Your task to perform on an android device: open app "Indeed Job Search" Image 0: 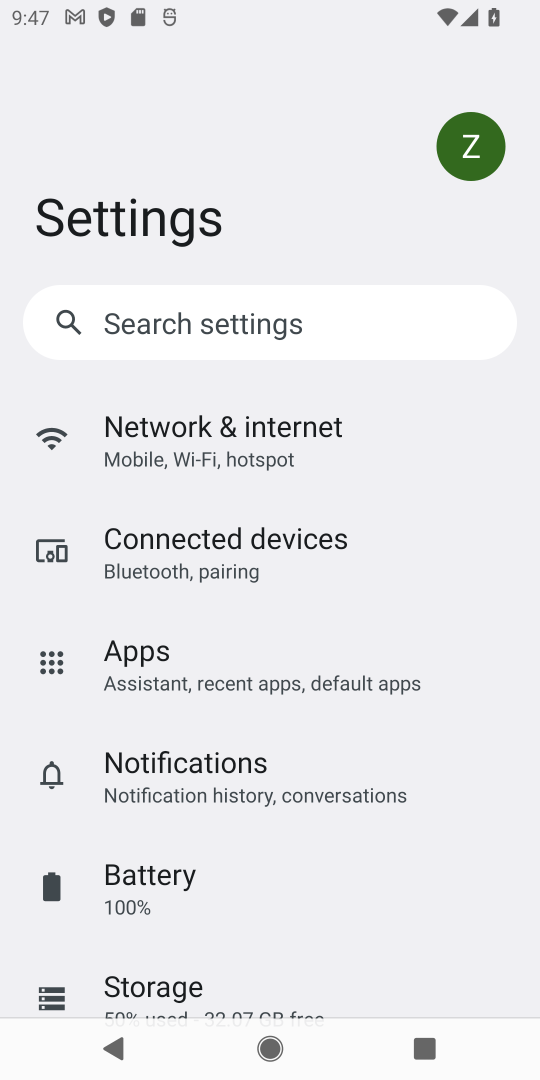
Step 0: press back button
Your task to perform on an android device: open app "Indeed Job Search" Image 1: 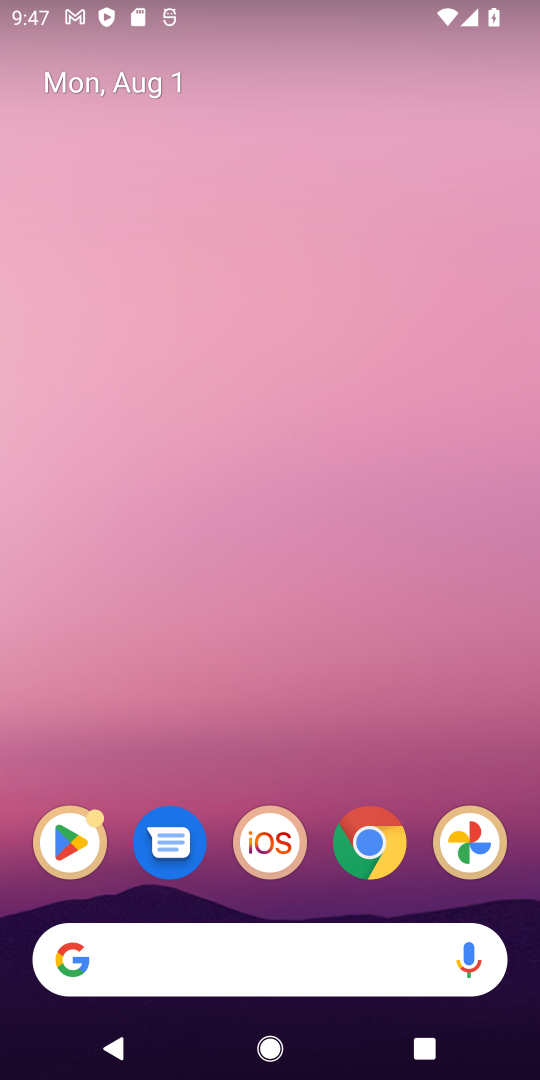
Step 1: click (86, 858)
Your task to perform on an android device: open app "Indeed Job Search" Image 2: 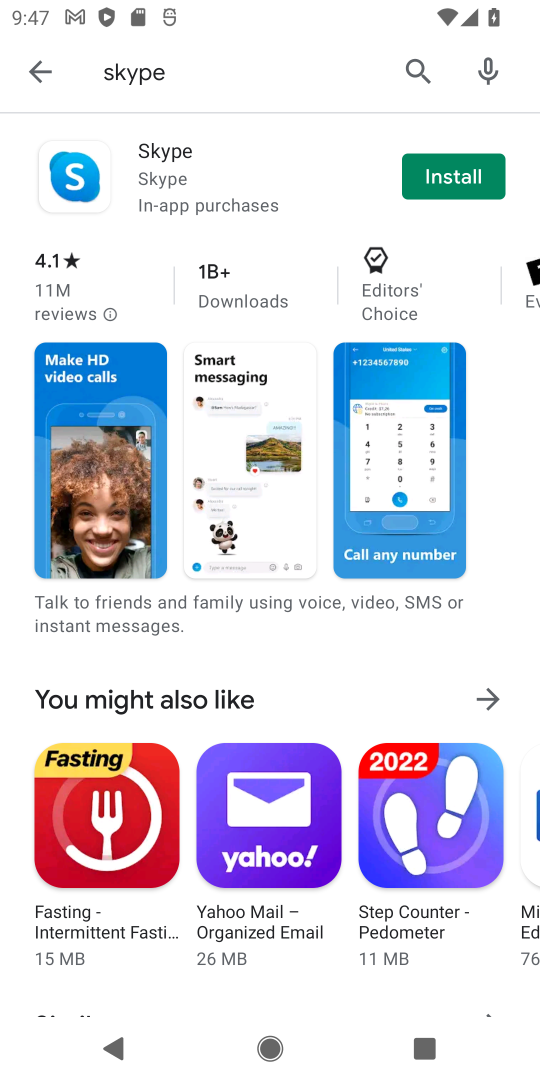
Step 2: click (401, 62)
Your task to perform on an android device: open app "Indeed Job Search" Image 3: 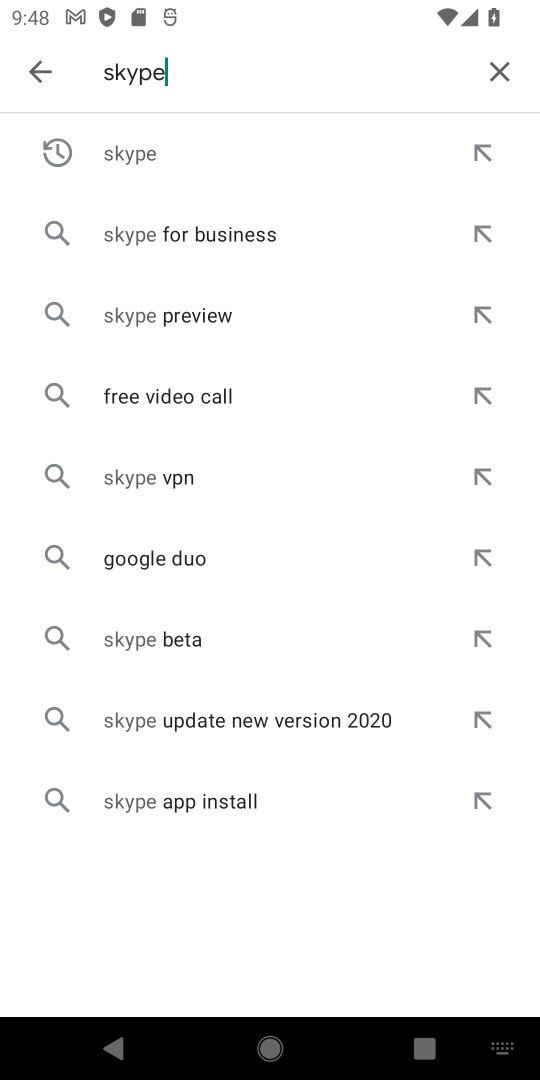
Step 3: click (488, 58)
Your task to perform on an android device: open app "Indeed Job Search" Image 4: 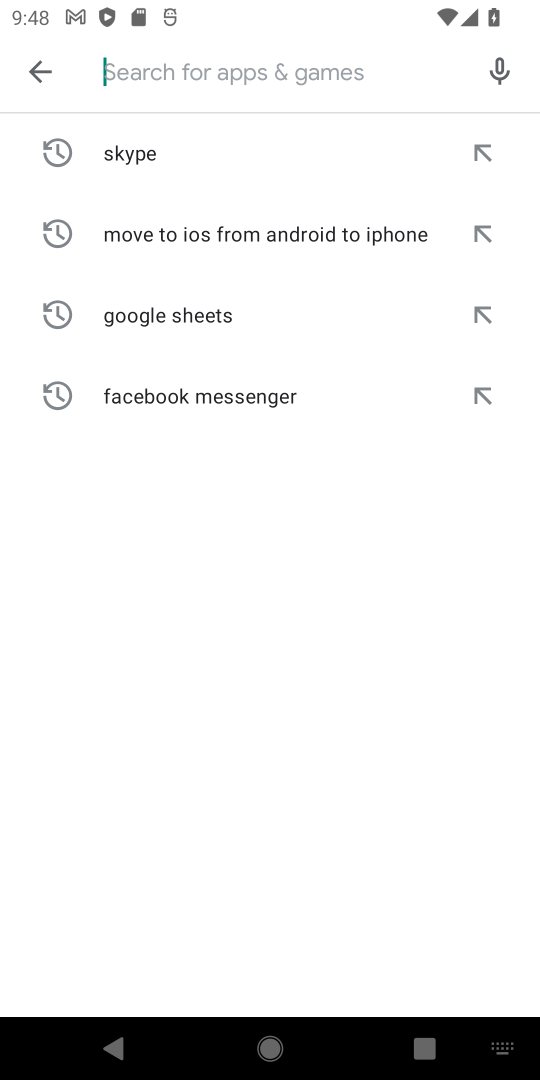
Step 4: click (153, 69)
Your task to perform on an android device: open app "Indeed Job Search" Image 5: 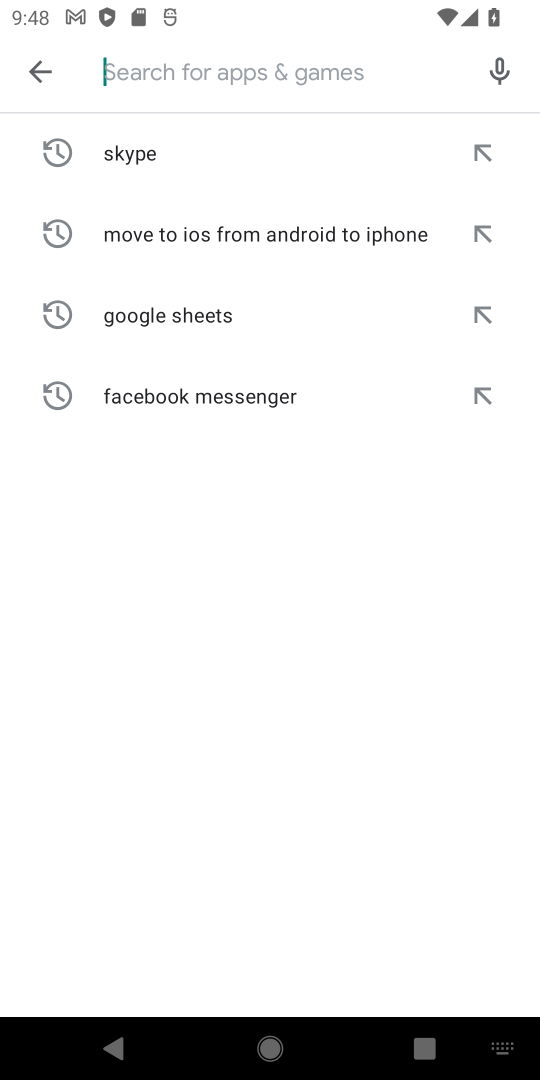
Step 5: type "Indeed Job Search"
Your task to perform on an android device: open app "Indeed Job Search" Image 6: 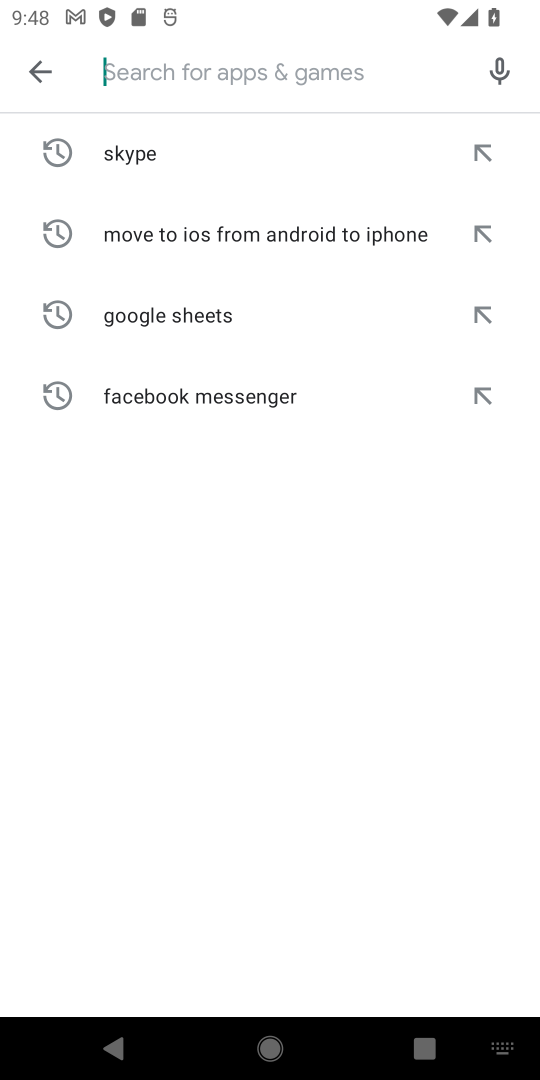
Step 6: click (210, 592)
Your task to perform on an android device: open app "Indeed Job Search" Image 7: 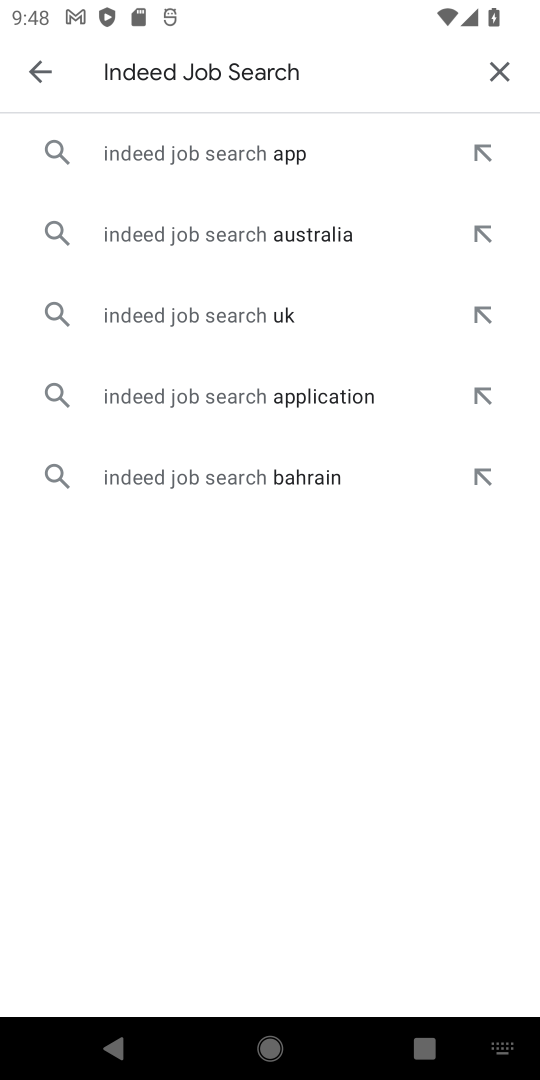
Step 7: click (198, 142)
Your task to perform on an android device: open app "Indeed Job Search" Image 8: 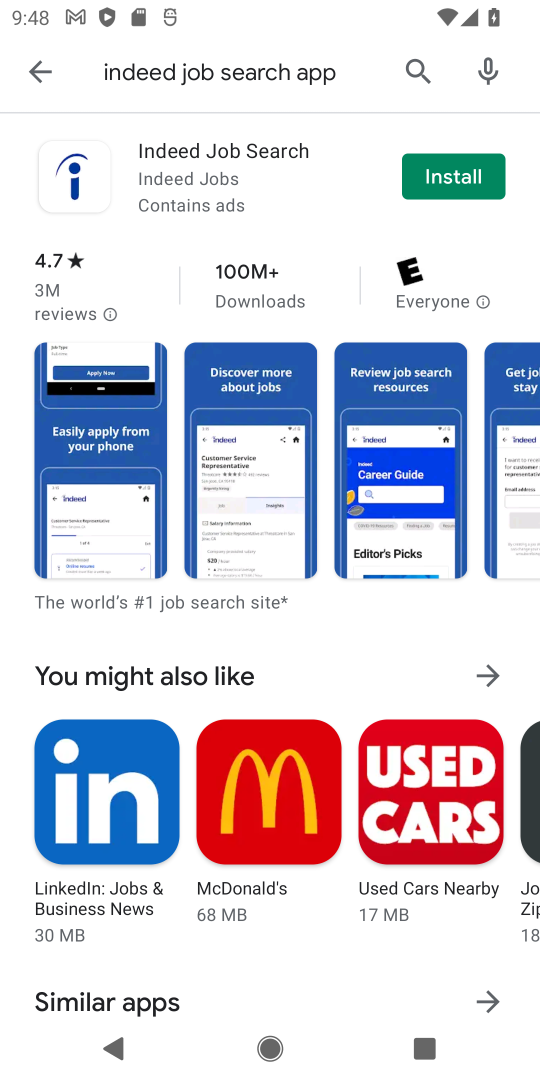
Step 8: task complete